Your task to perform on an android device: turn off airplane mode Image 0: 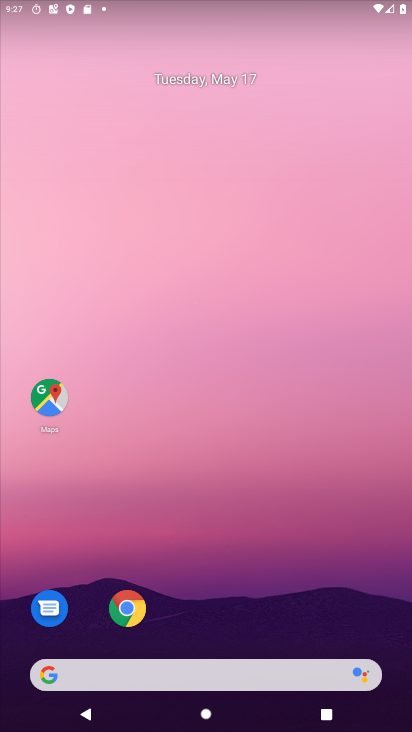
Step 0: drag from (184, 475) to (225, 140)
Your task to perform on an android device: turn off airplane mode Image 1: 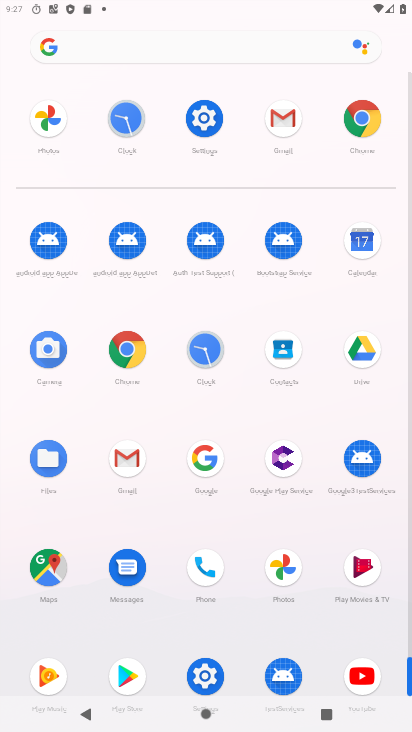
Step 1: click (212, 111)
Your task to perform on an android device: turn off airplane mode Image 2: 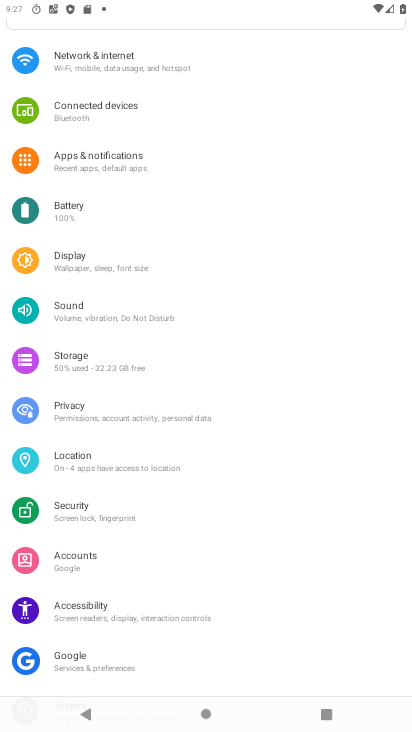
Step 2: drag from (212, 146) to (199, 491)
Your task to perform on an android device: turn off airplane mode Image 3: 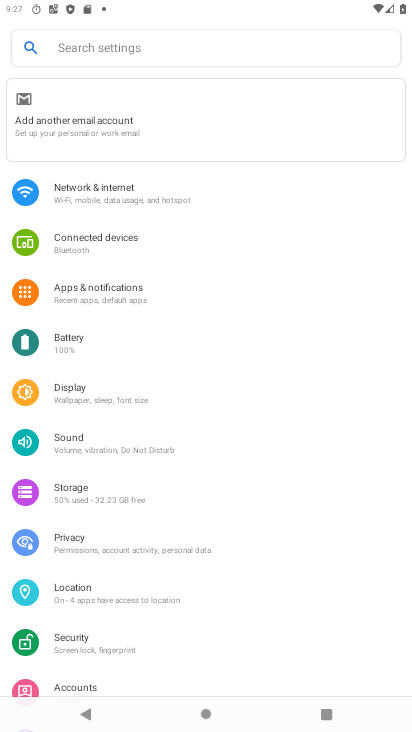
Step 3: click (157, 189)
Your task to perform on an android device: turn off airplane mode Image 4: 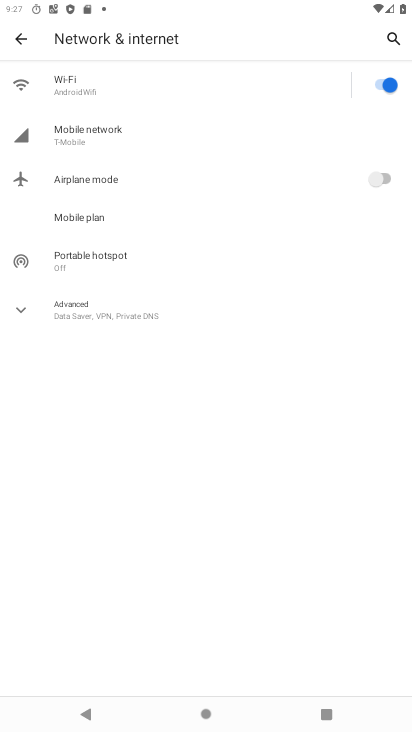
Step 4: task complete